Your task to perform on an android device: delete the emails in spam in the gmail app Image 0: 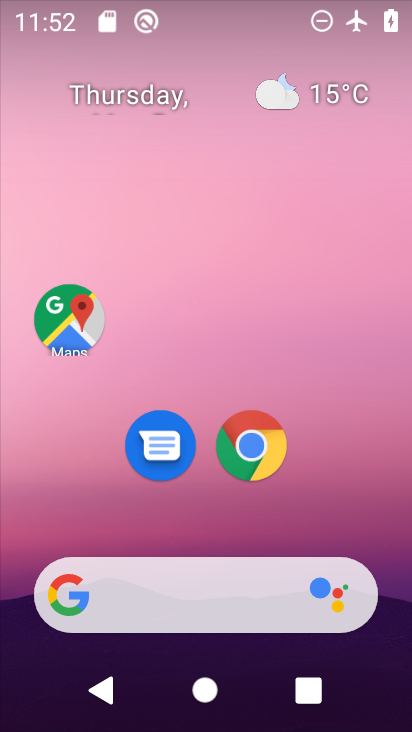
Step 0: drag from (227, 526) to (193, 57)
Your task to perform on an android device: delete the emails in spam in the gmail app Image 1: 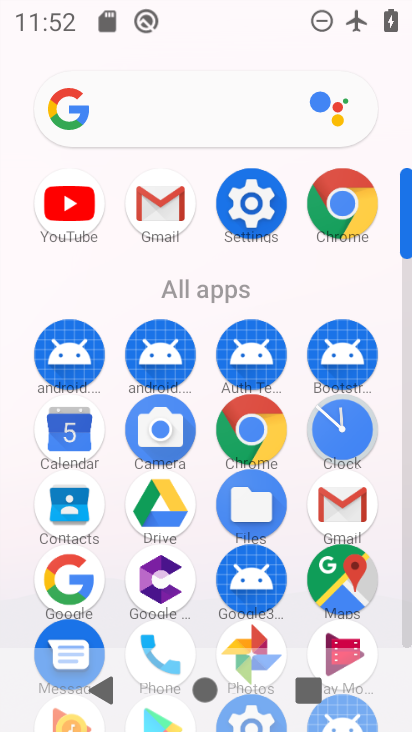
Step 1: click (157, 206)
Your task to perform on an android device: delete the emails in spam in the gmail app Image 2: 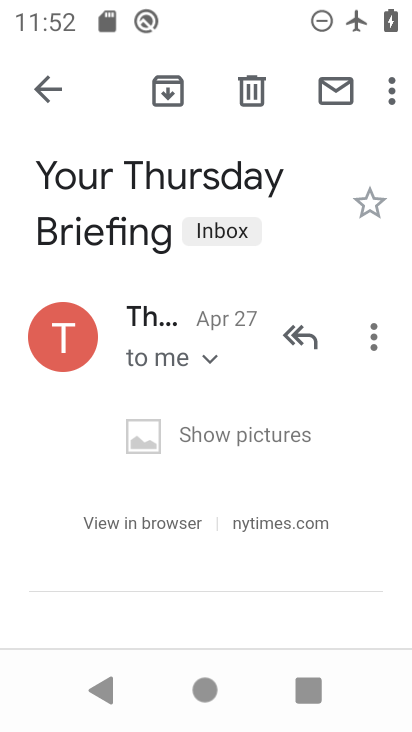
Step 2: click (47, 90)
Your task to perform on an android device: delete the emails in spam in the gmail app Image 3: 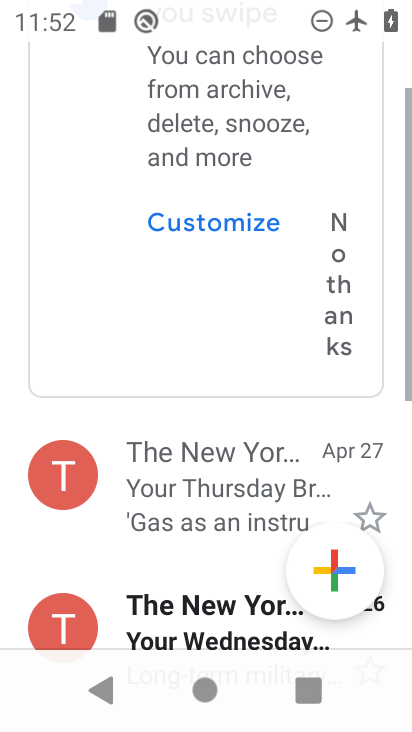
Step 3: drag from (105, 151) to (102, 731)
Your task to perform on an android device: delete the emails in spam in the gmail app Image 4: 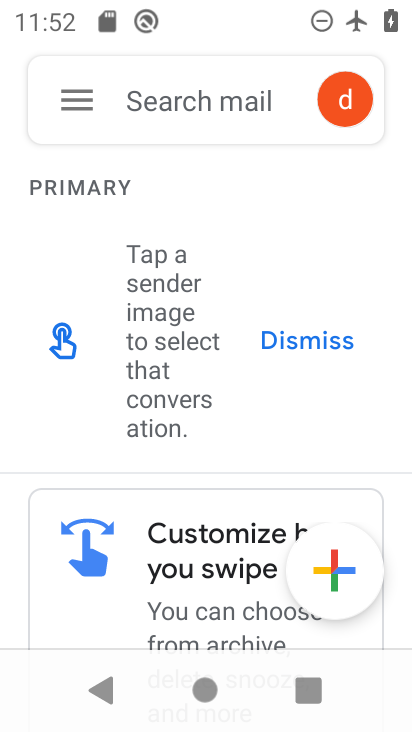
Step 4: drag from (114, 157) to (119, 667)
Your task to perform on an android device: delete the emails in spam in the gmail app Image 5: 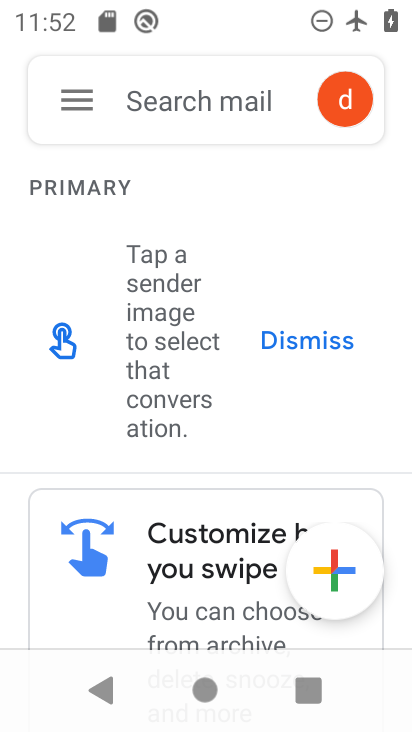
Step 5: drag from (104, 151) to (93, 604)
Your task to perform on an android device: delete the emails in spam in the gmail app Image 6: 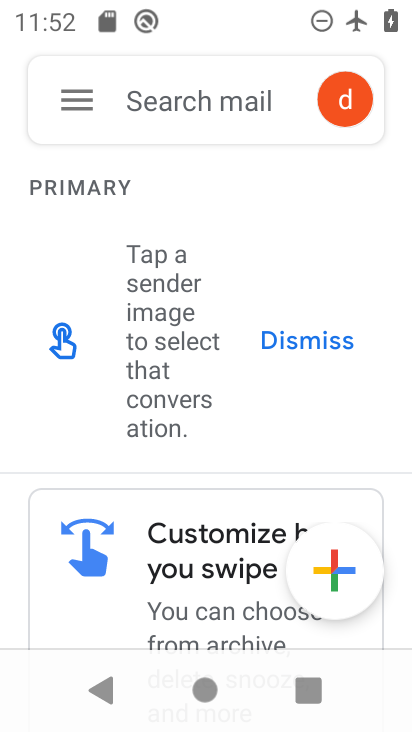
Step 6: click (69, 94)
Your task to perform on an android device: delete the emails in spam in the gmail app Image 7: 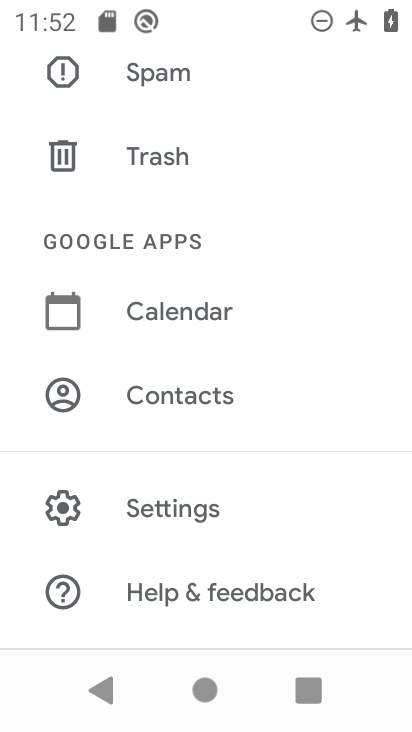
Step 7: click (143, 73)
Your task to perform on an android device: delete the emails in spam in the gmail app Image 8: 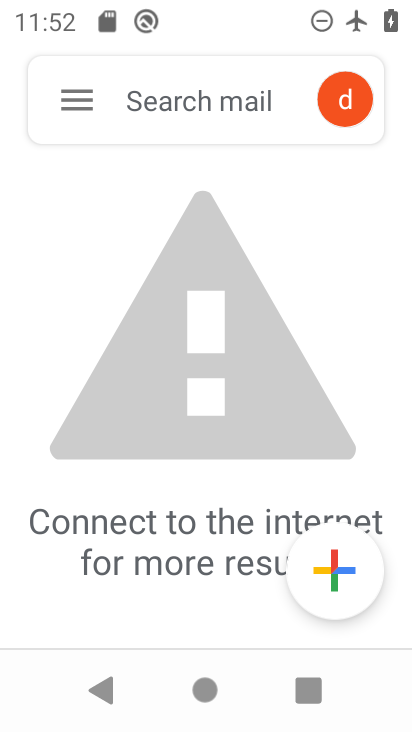
Step 8: task complete